Your task to perform on an android device: Check the news Image 0: 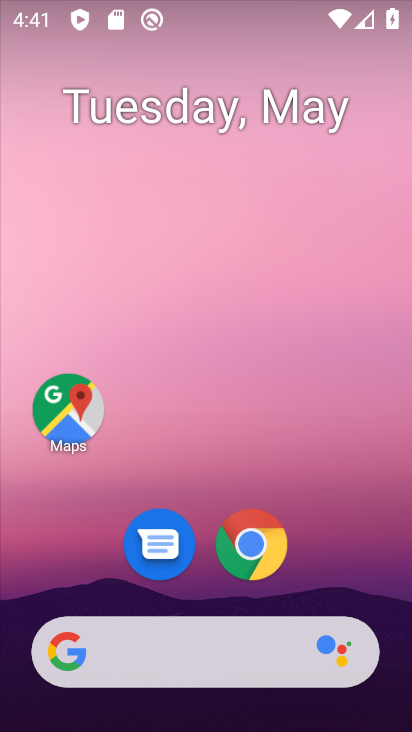
Step 0: click (249, 650)
Your task to perform on an android device: Check the news Image 1: 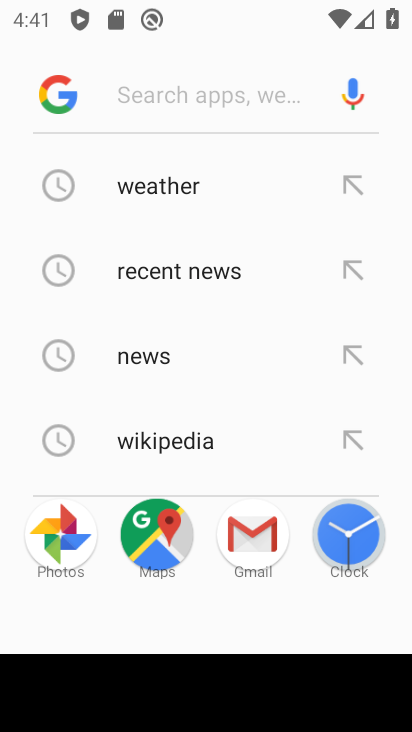
Step 1: click (214, 341)
Your task to perform on an android device: Check the news Image 2: 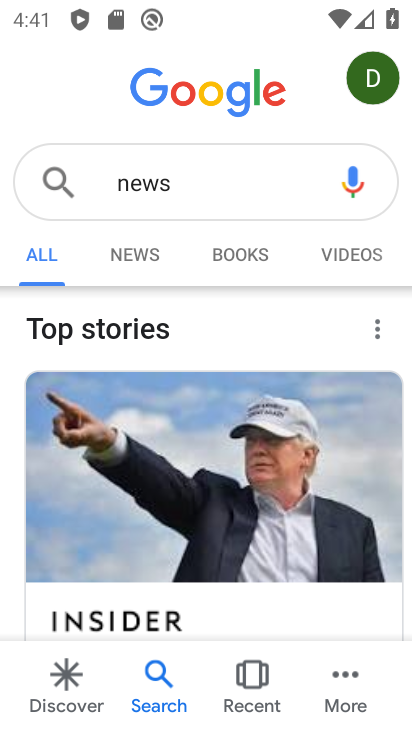
Step 2: task complete